Your task to perform on an android device: Do I have any events today? Image 0: 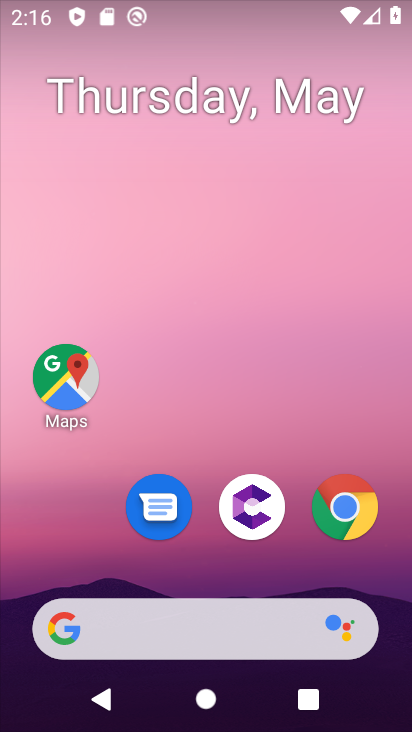
Step 0: drag from (299, 546) to (324, 28)
Your task to perform on an android device: Do I have any events today? Image 1: 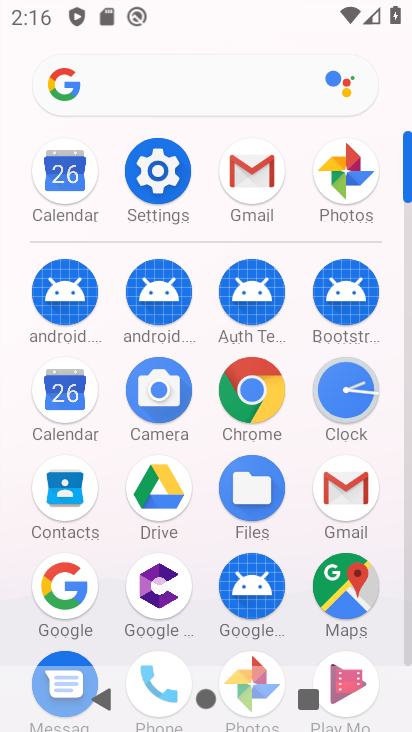
Step 1: click (77, 162)
Your task to perform on an android device: Do I have any events today? Image 2: 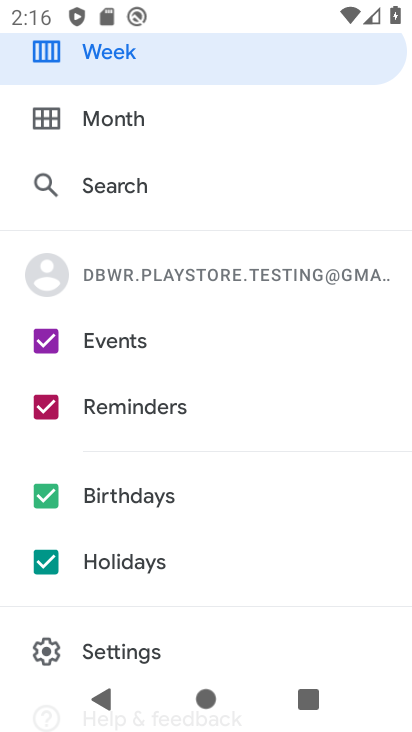
Step 2: click (112, 342)
Your task to perform on an android device: Do I have any events today? Image 3: 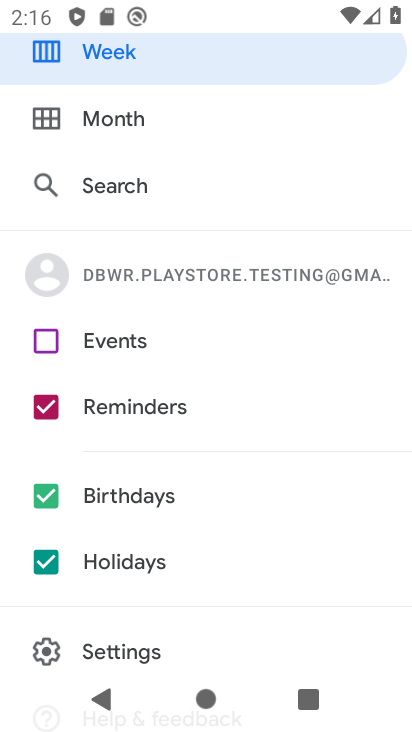
Step 3: click (112, 342)
Your task to perform on an android device: Do I have any events today? Image 4: 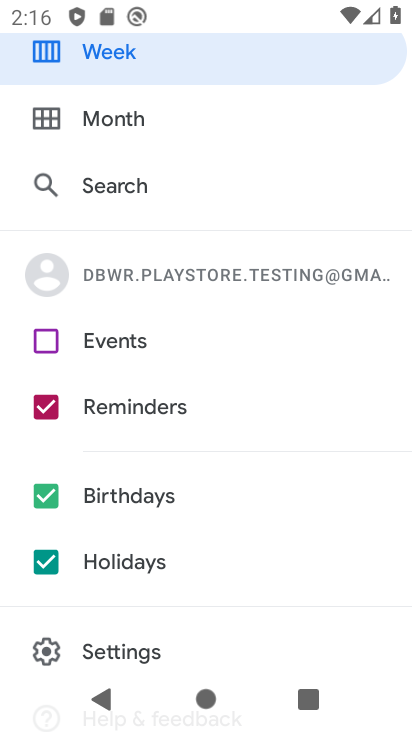
Step 4: click (360, 337)
Your task to perform on an android device: Do I have any events today? Image 5: 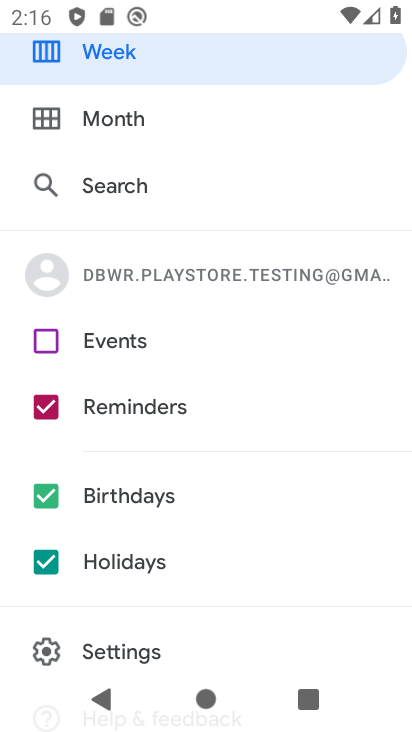
Step 5: click (127, 338)
Your task to perform on an android device: Do I have any events today? Image 6: 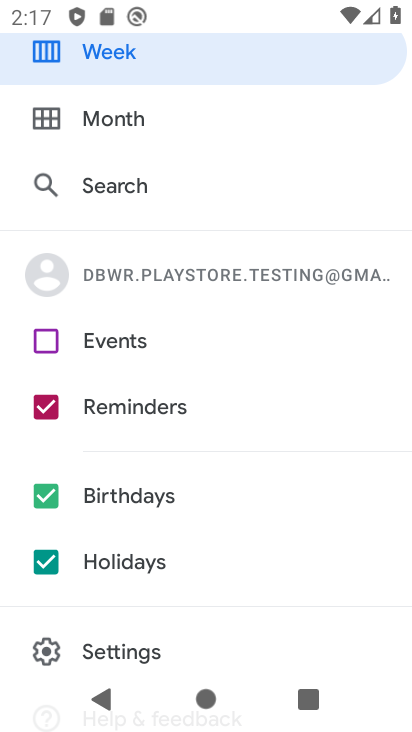
Step 6: click (135, 347)
Your task to perform on an android device: Do I have any events today? Image 7: 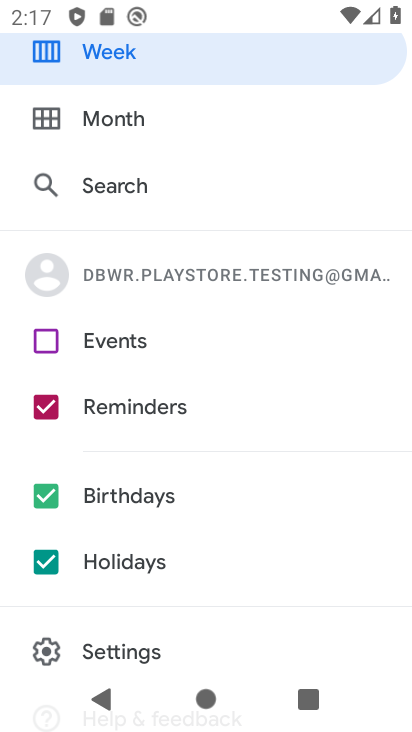
Step 7: click (107, 342)
Your task to perform on an android device: Do I have any events today? Image 8: 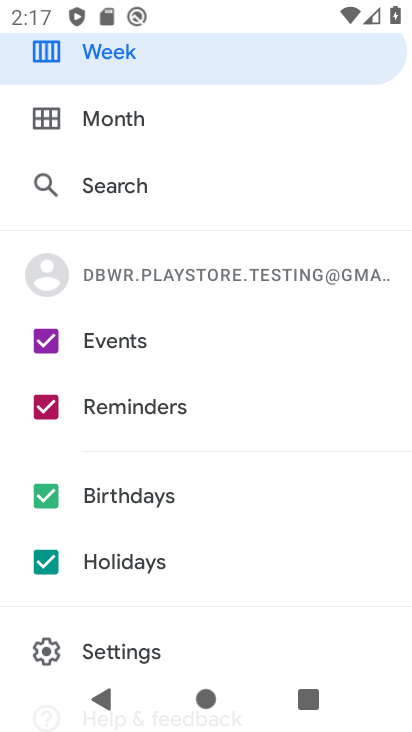
Step 8: task complete